Your task to perform on an android device: What is the recent news? Image 0: 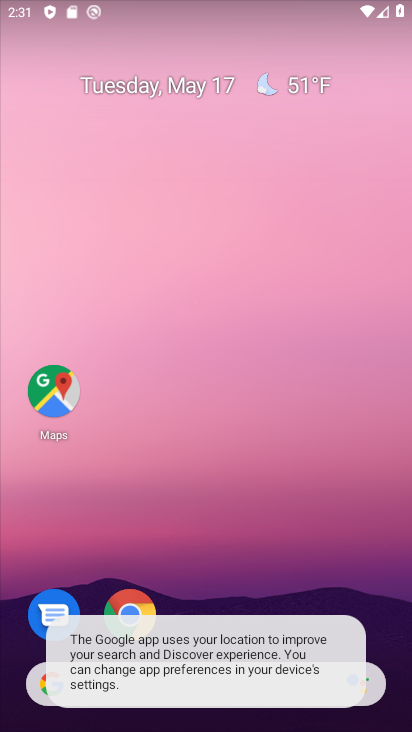
Step 0: press home button
Your task to perform on an android device: What is the recent news? Image 1: 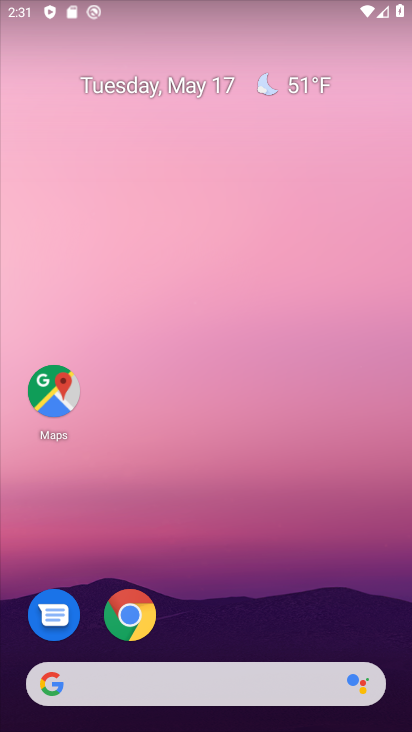
Step 1: task complete